Your task to perform on an android device: Open calendar and show me the third week of next month Image 0: 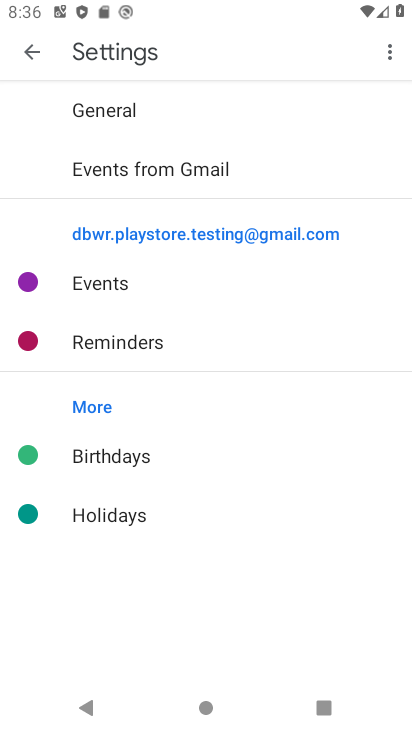
Step 0: press home button
Your task to perform on an android device: Open calendar and show me the third week of next month Image 1: 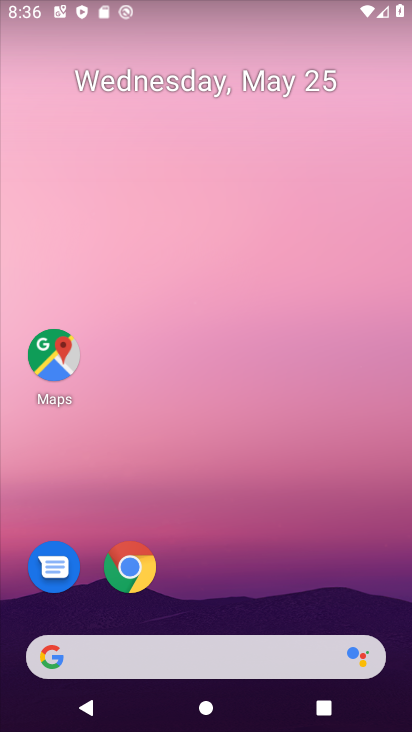
Step 1: drag from (222, 537) to (174, 244)
Your task to perform on an android device: Open calendar and show me the third week of next month Image 2: 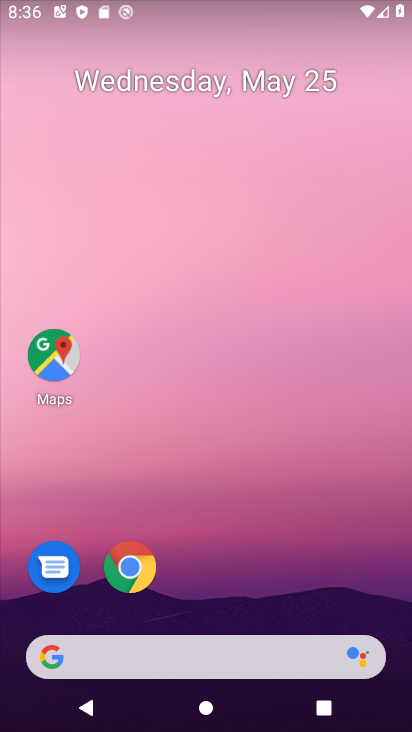
Step 2: drag from (272, 577) to (255, 95)
Your task to perform on an android device: Open calendar and show me the third week of next month Image 3: 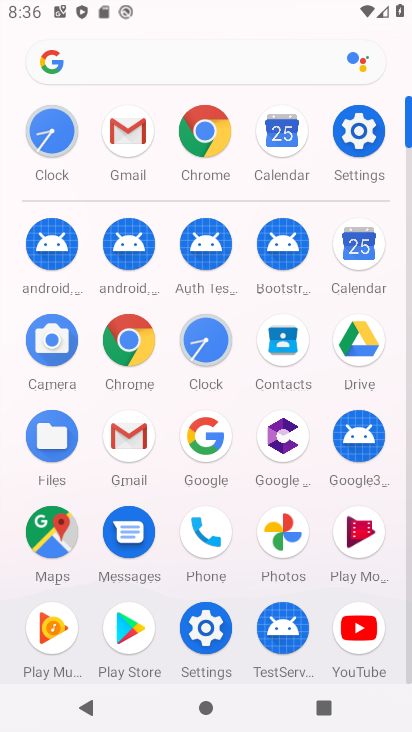
Step 3: click (369, 271)
Your task to perform on an android device: Open calendar and show me the third week of next month Image 4: 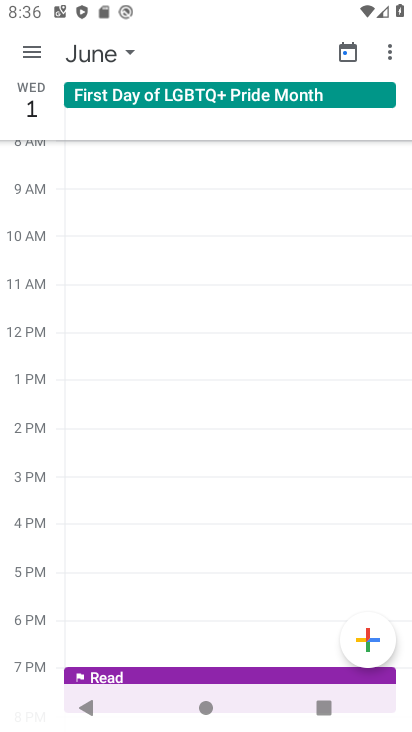
Step 4: task complete